Your task to perform on an android device: Open Google Chrome and click the shortcut for Amazon.com Image 0: 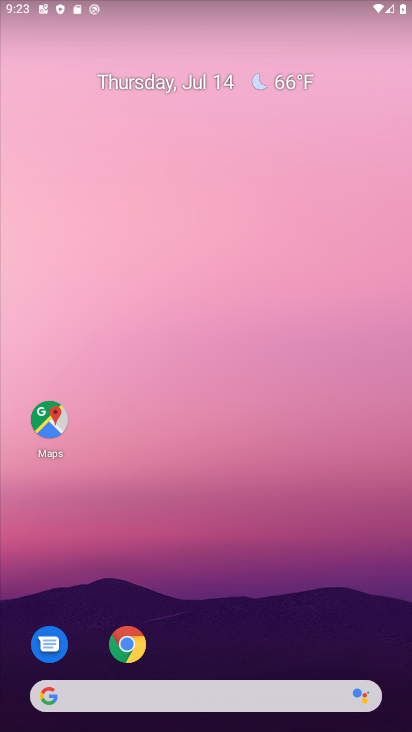
Step 0: drag from (290, 707) to (235, 358)
Your task to perform on an android device: Open Google Chrome and click the shortcut for Amazon.com Image 1: 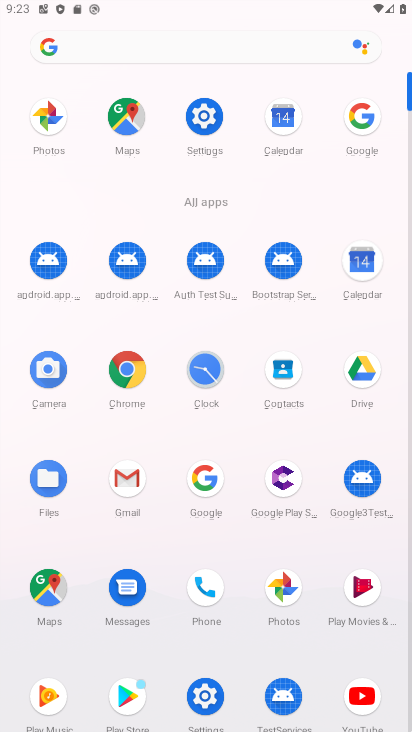
Step 1: click (127, 366)
Your task to perform on an android device: Open Google Chrome and click the shortcut for Amazon.com Image 2: 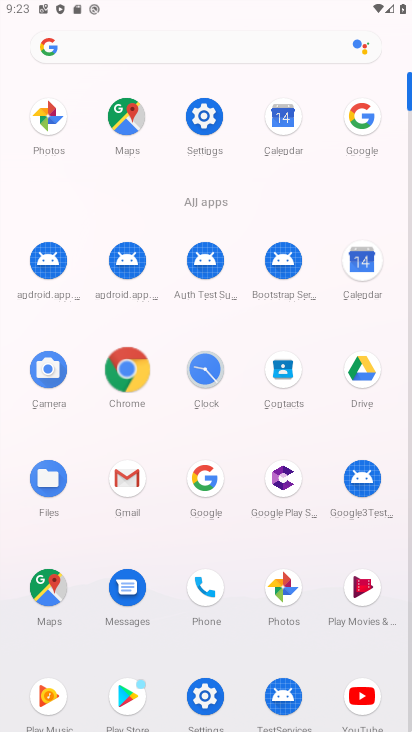
Step 2: click (131, 364)
Your task to perform on an android device: Open Google Chrome and click the shortcut for Amazon.com Image 3: 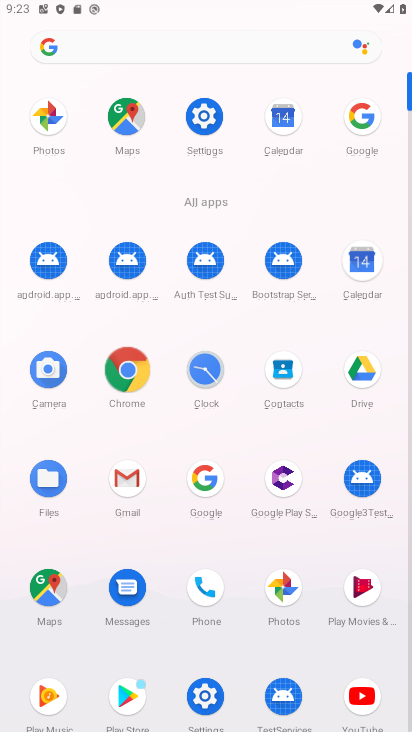
Step 3: click (131, 364)
Your task to perform on an android device: Open Google Chrome and click the shortcut for Amazon.com Image 4: 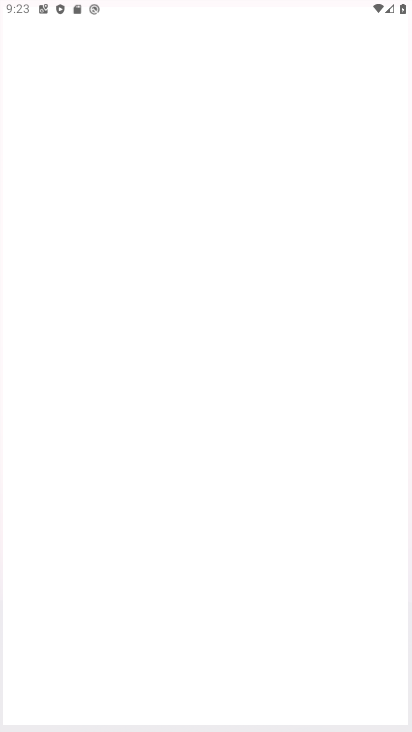
Step 4: click (132, 364)
Your task to perform on an android device: Open Google Chrome and click the shortcut for Amazon.com Image 5: 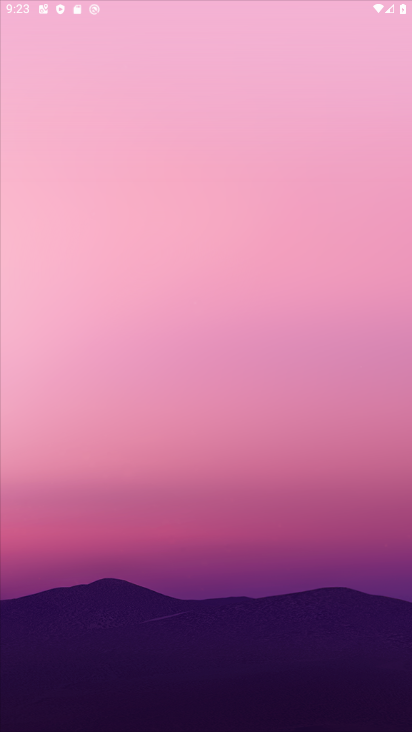
Step 5: click (133, 363)
Your task to perform on an android device: Open Google Chrome and click the shortcut for Amazon.com Image 6: 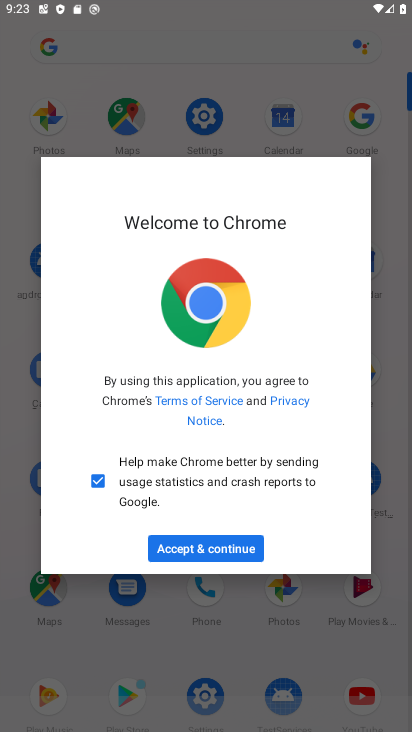
Step 6: click (228, 540)
Your task to perform on an android device: Open Google Chrome and click the shortcut for Amazon.com Image 7: 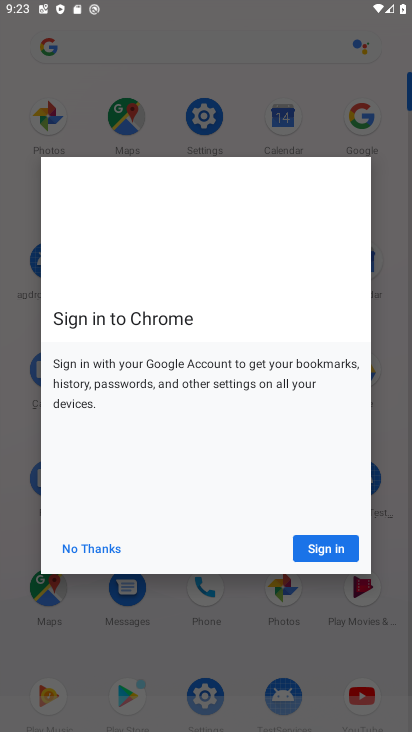
Step 7: click (228, 540)
Your task to perform on an android device: Open Google Chrome and click the shortcut for Amazon.com Image 8: 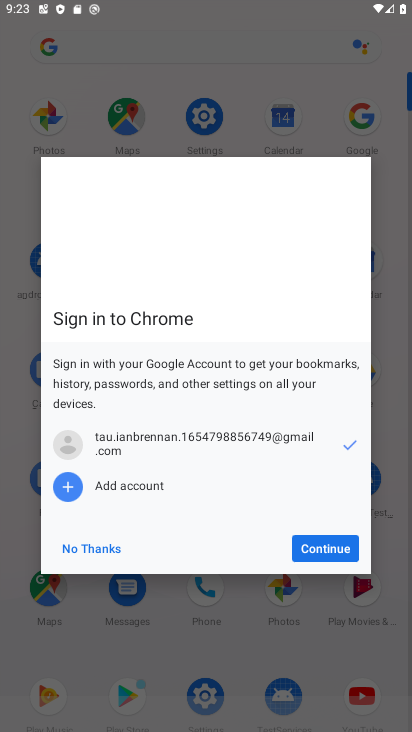
Step 8: click (324, 547)
Your task to perform on an android device: Open Google Chrome and click the shortcut for Amazon.com Image 9: 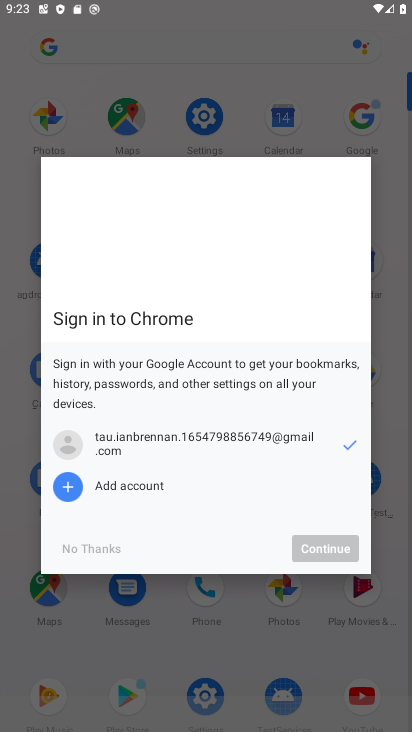
Step 9: click (324, 549)
Your task to perform on an android device: Open Google Chrome and click the shortcut for Amazon.com Image 10: 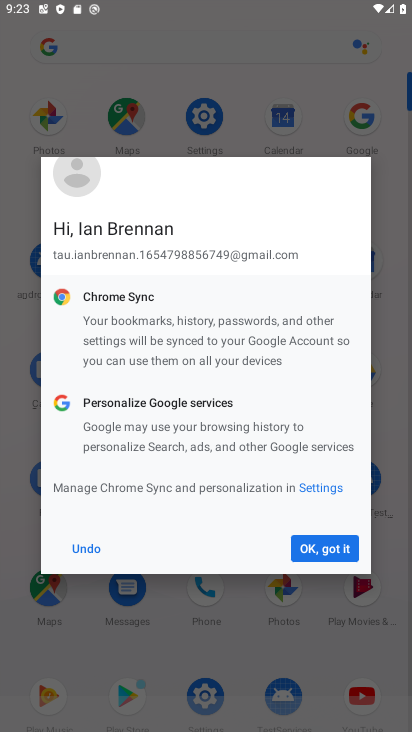
Step 10: click (324, 548)
Your task to perform on an android device: Open Google Chrome and click the shortcut for Amazon.com Image 11: 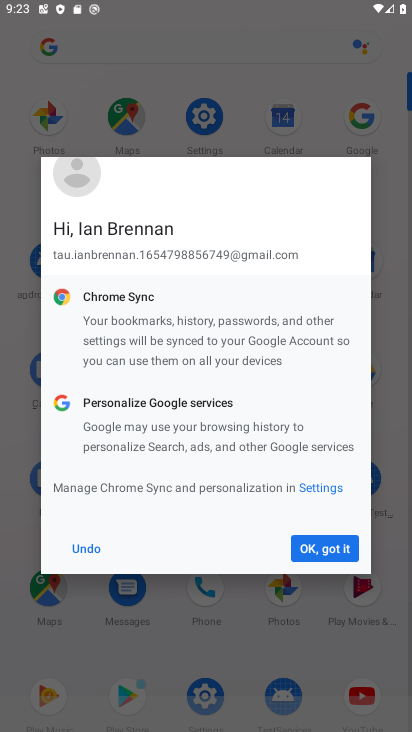
Step 11: click (324, 549)
Your task to perform on an android device: Open Google Chrome and click the shortcut for Amazon.com Image 12: 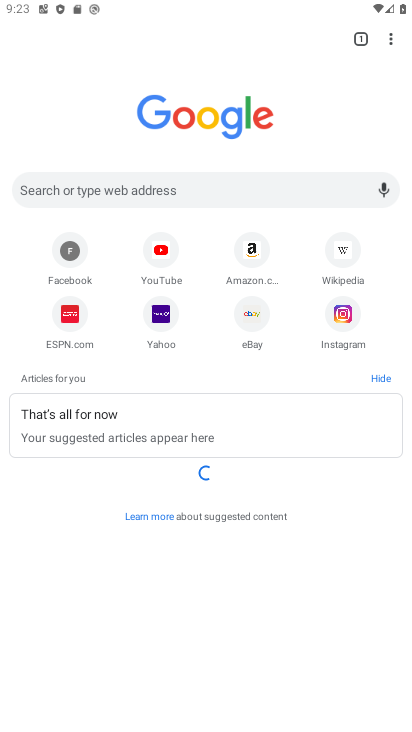
Step 12: drag from (394, 42) to (232, 322)
Your task to perform on an android device: Open Google Chrome and click the shortcut for Amazon.com Image 13: 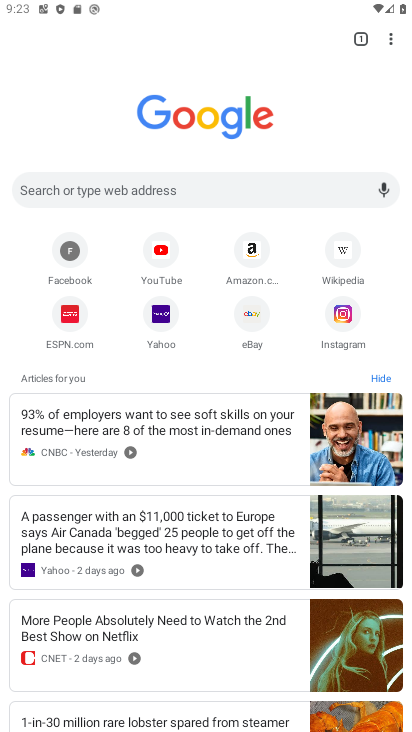
Step 13: click (117, 124)
Your task to perform on an android device: Open Google Chrome and click the shortcut for Amazon.com Image 14: 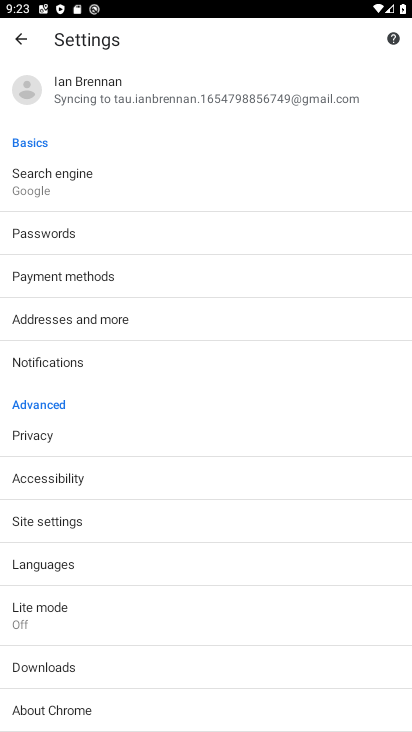
Step 14: task complete